Your task to perform on an android device: find which apps use the phone's location Image 0: 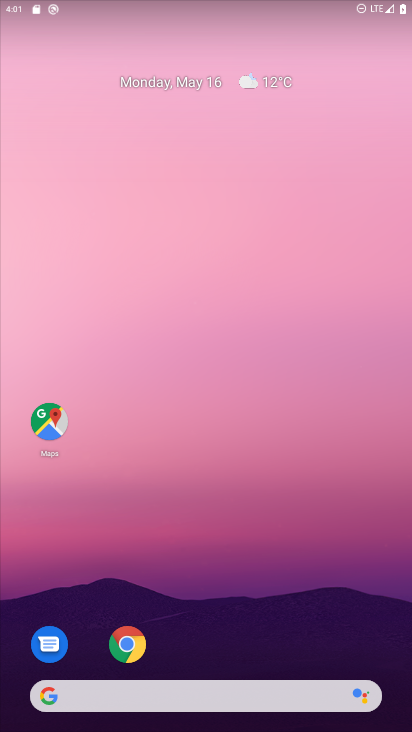
Step 0: drag from (240, 462) to (201, 42)
Your task to perform on an android device: find which apps use the phone's location Image 1: 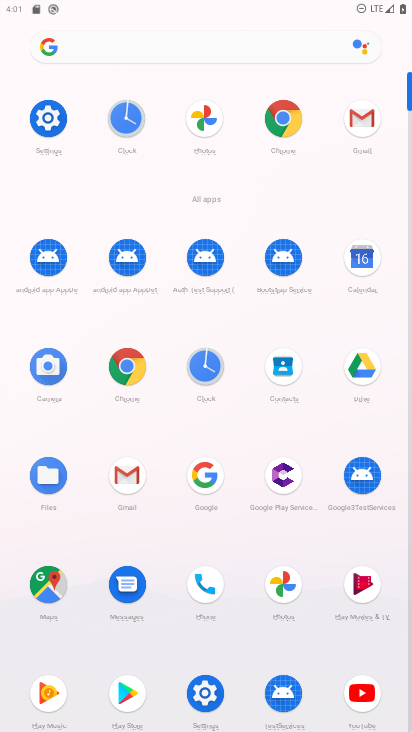
Step 1: click (59, 134)
Your task to perform on an android device: find which apps use the phone's location Image 2: 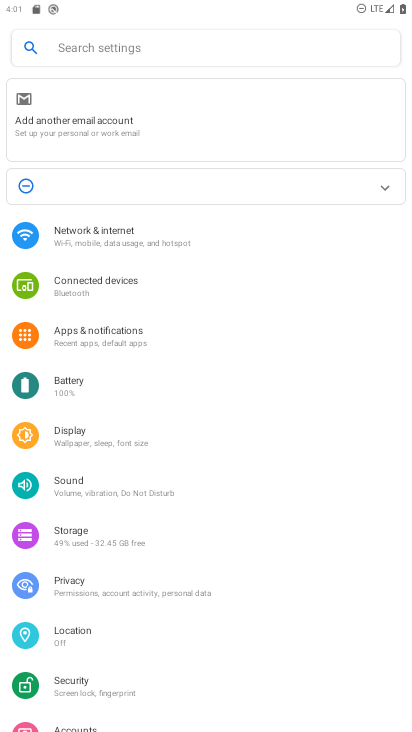
Step 2: click (109, 638)
Your task to perform on an android device: find which apps use the phone's location Image 3: 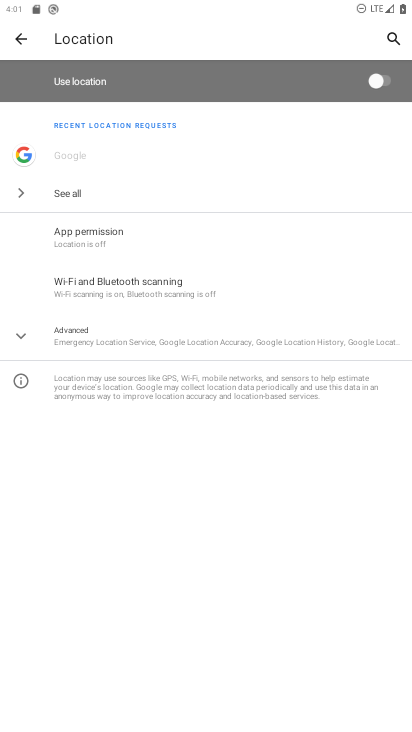
Step 3: click (117, 244)
Your task to perform on an android device: find which apps use the phone's location Image 4: 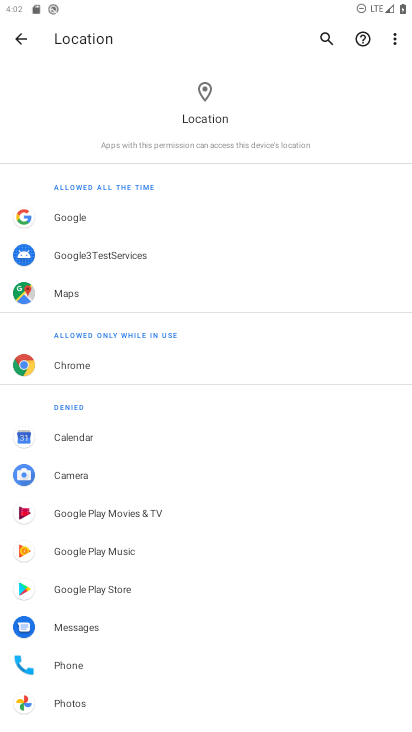
Step 4: task complete